Your task to perform on an android device: Go to Google Image 0: 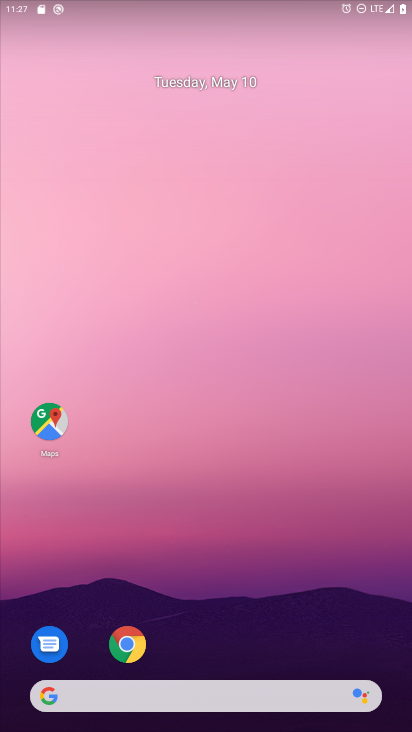
Step 0: drag from (218, 626) to (275, 200)
Your task to perform on an android device: Go to Google Image 1: 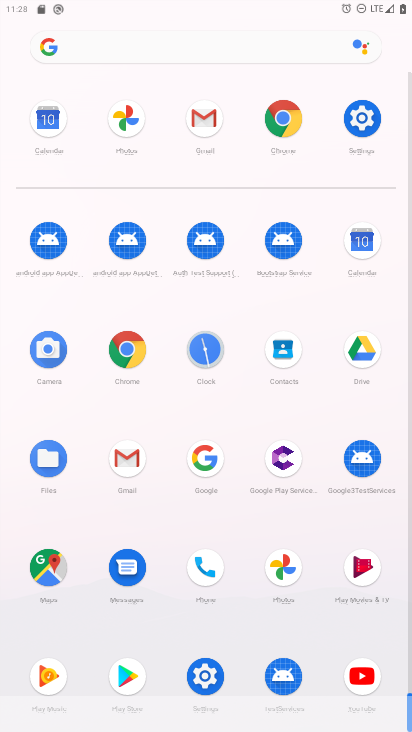
Step 1: click (204, 467)
Your task to perform on an android device: Go to Google Image 2: 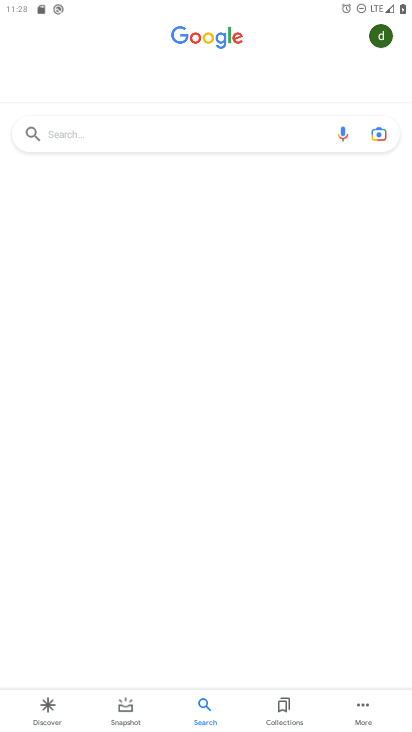
Step 2: task complete